Your task to perform on an android device: Go to wifi settings Image 0: 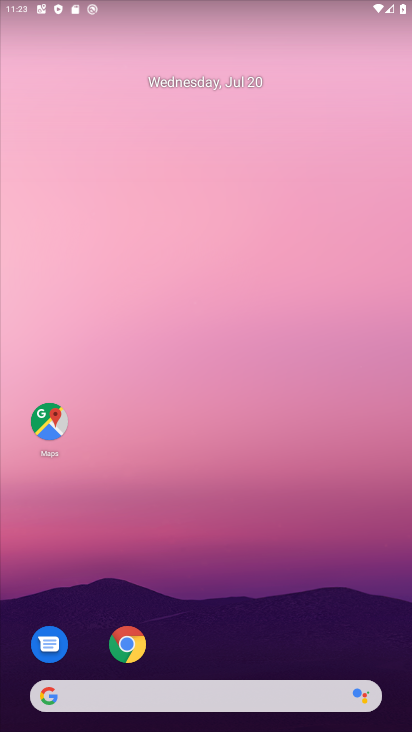
Step 0: drag from (183, 686) to (224, 112)
Your task to perform on an android device: Go to wifi settings Image 1: 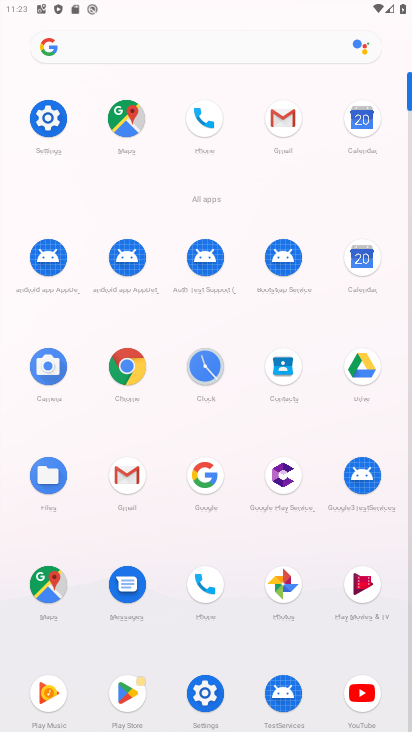
Step 1: click (44, 125)
Your task to perform on an android device: Go to wifi settings Image 2: 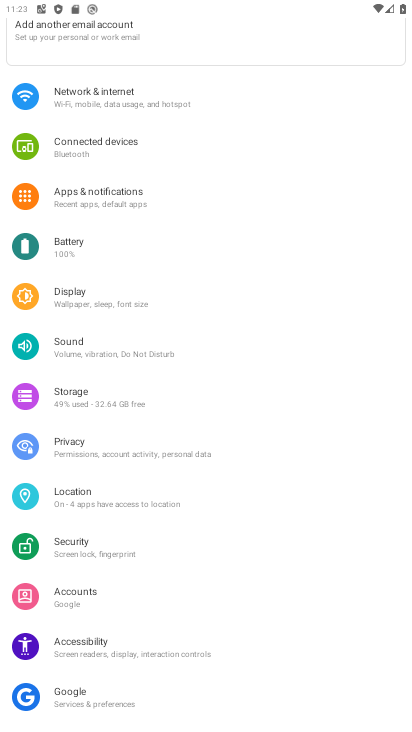
Step 2: click (88, 92)
Your task to perform on an android device: Go to wifi settings Image 3: 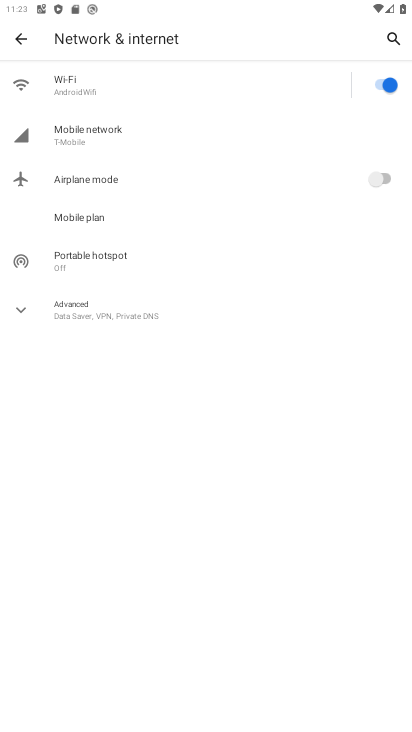
Step 3: click (315, 78)
Your task to perform on an android device: Go to wifi settings Image 4: 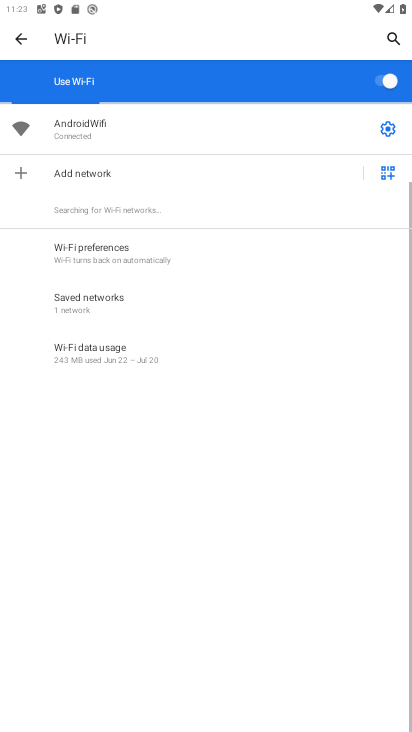
Step 4: click (382, 127)
Your task to perform on an android device: Go to wifi settings Image 5: 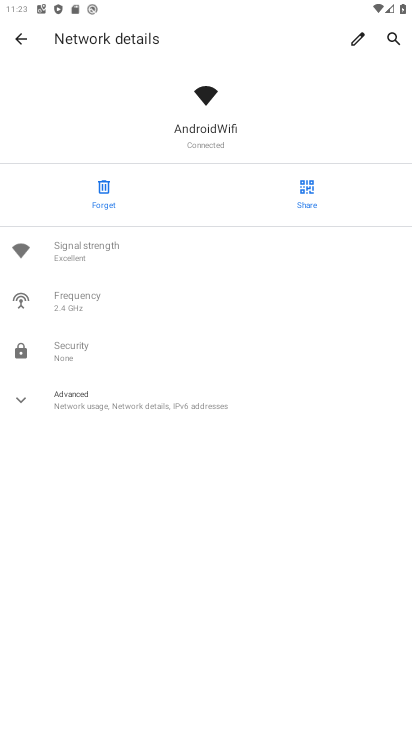
Step 5: click (140, 404)
Your task to perform on an android device: Go to wifi settings Image 6: 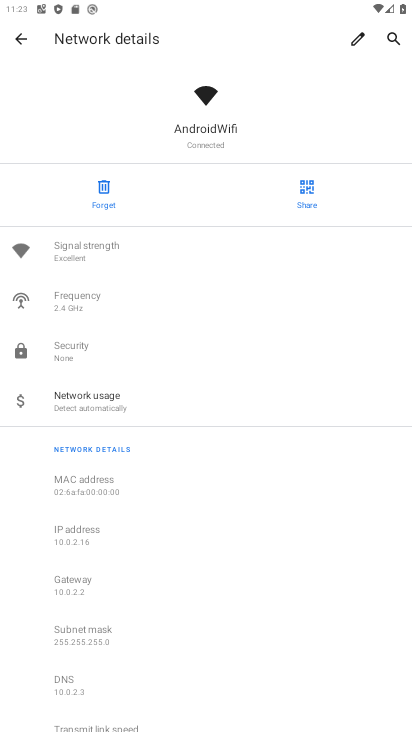
Step 6: task complete